Your task to perform on an android device: turn on javascript in the chrome app Image 0: 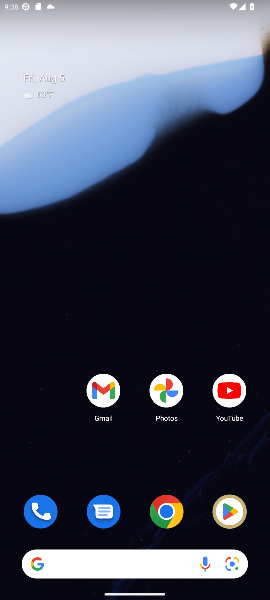
Step 0: click (167, 512)
Your task to perform on an android device: turn on javascript in the chrome app Image 1: 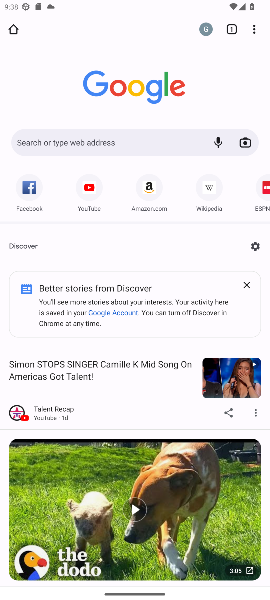
Step 1: click (253, 32)
Your task to perform on an android device: turn on javascript in the chrome app Image 2: 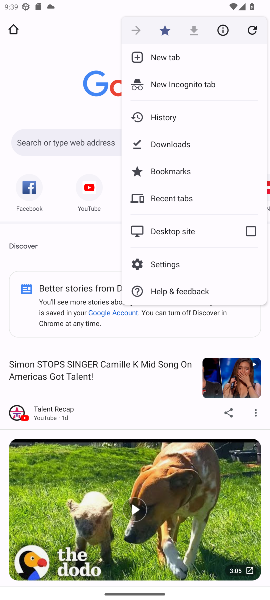
Step 2: click (165, 263)
Your task to perform on an android device: turn on javascript in the chrome app Image 3: 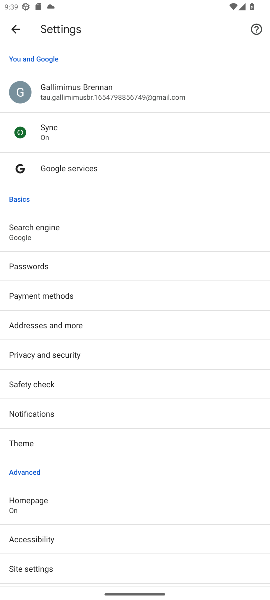
Step 3: drag from (46, 513) to (63, 451)
Your task to perform on an android device: turn on javascript in the chrome app Image 4: 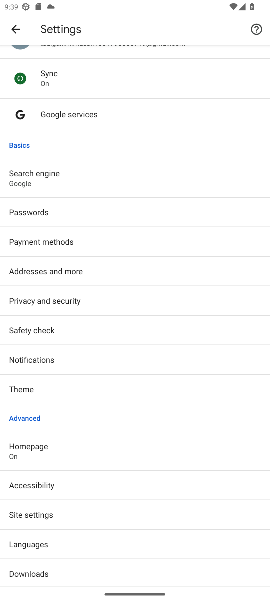
Step 4: drag from (69, 523) to (103, 443)
Your task to perform on an android device: turn on javascript in the chrome app Image 5: 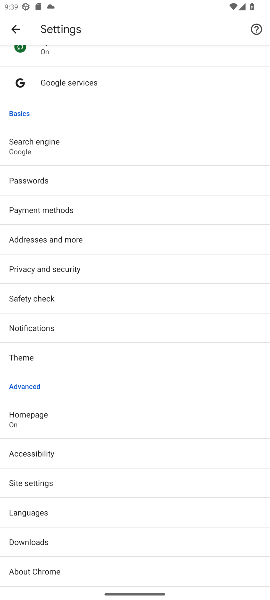
Step 5: click (37, 484)
Your task to perform on an android device: turn on javascript in the chrome app Image 6: 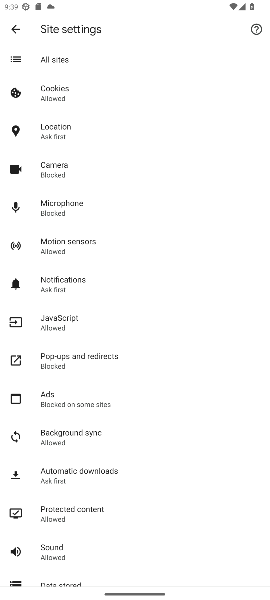
Step 6: click (62, 324)
Your task to perform on an android device: turn on javascript in the chrome app Image 7: 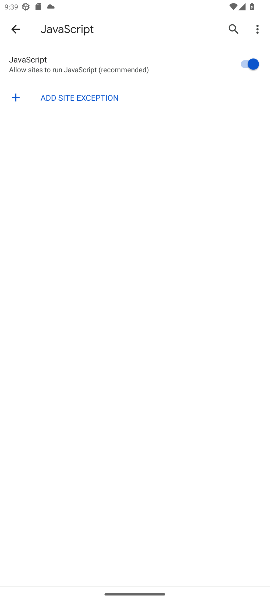
Step 7: task complete